Your task to perform on an android device: turn off smart reply in the gmail app Image 0: 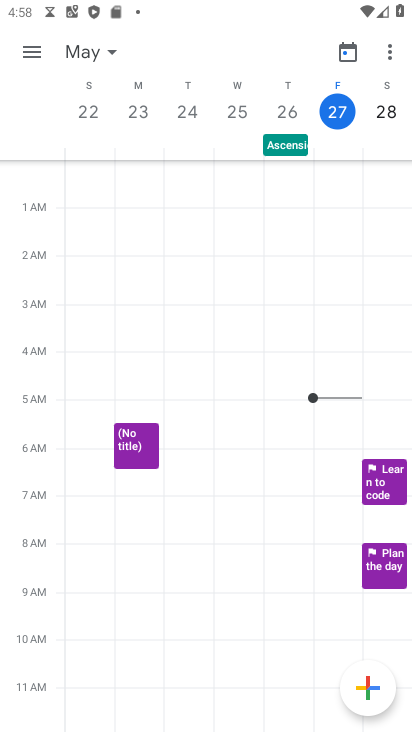
Step 0: press home button
Your task to perform on an android device: turn off smart reply in the gmail app Image 1: 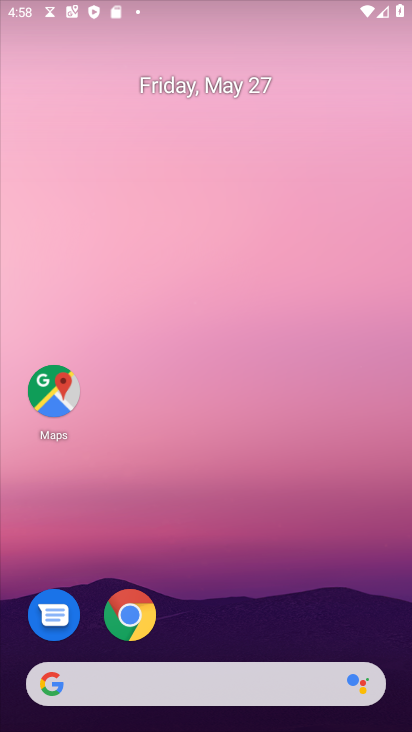
Step 1: drag from (304, 519) to (172, 13)
Your task to perform on an android device: turn off smart reply in the gmail app Image 2: 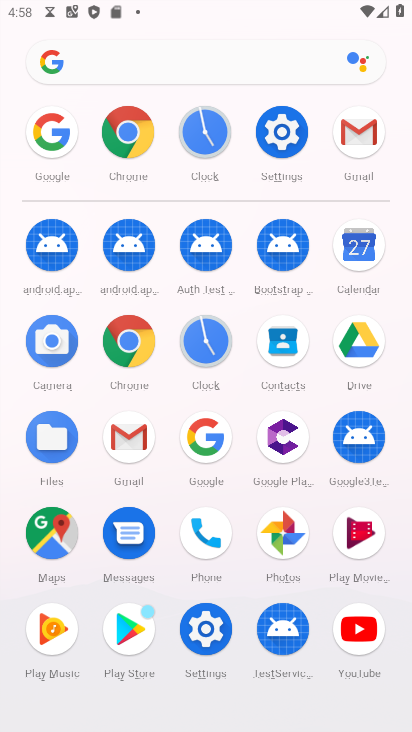
Step 2: click (126, 438)
Your task to perform on an android device: turn off smart reply in the gmail app Image 3: 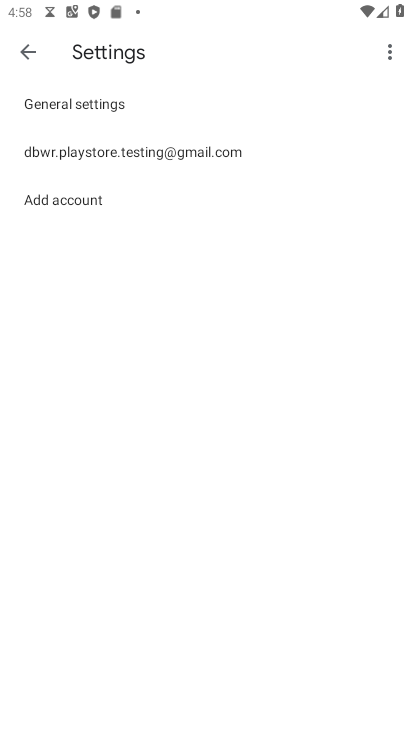
Step 3: click (99, 158)
Your task to perform on an android device: turn off smart reply in the gmail app Image 4: 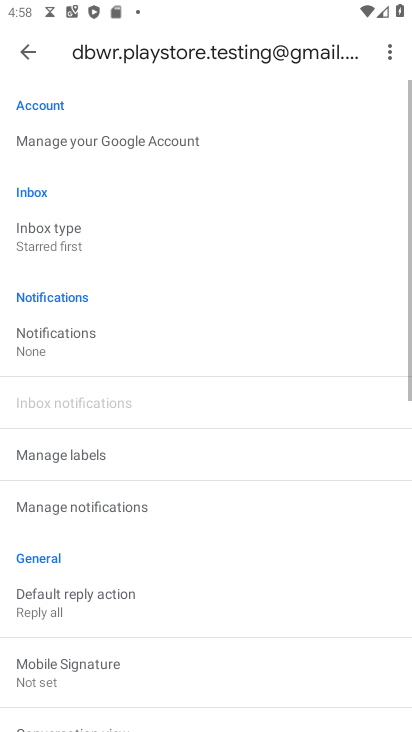
Step 4: drag from (250, 464) to (175, 4)
Your task to perform on an android device: turn off smart reply in the gmail app Image 5: 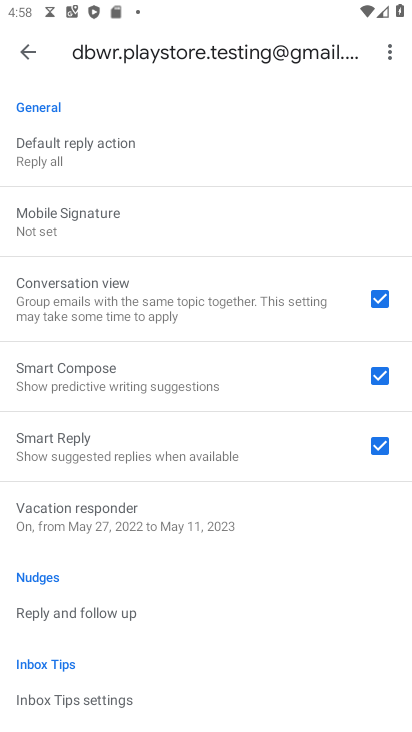
Step 5: click (376, 453)
Your task to perform on an android device: turn off smart reply in the gmail app Image 6: 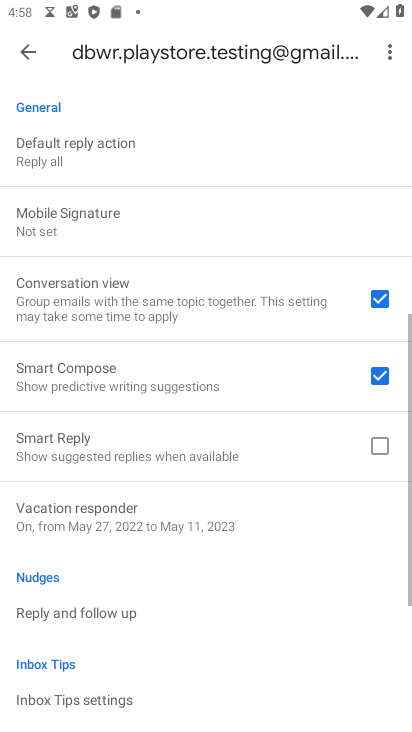
Step 6: task complete